Your task to perform on an android device: Go to network settings Image 0: 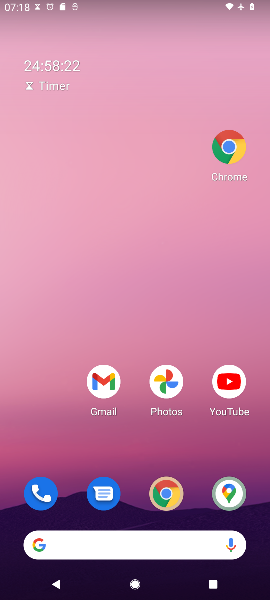
Step 0: press home button
Your task to perform on an android device: Go to network settings Image 1: 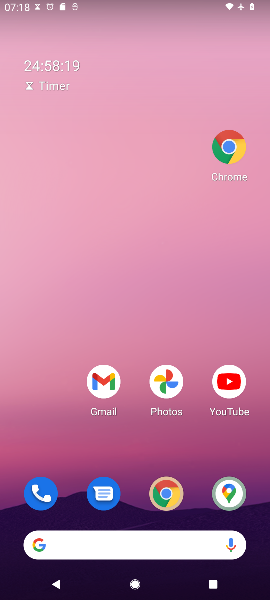
Step 1: drag from (73, 446) to (65, 40)
Your task to perform on an android device: Go to network settings Image 2: 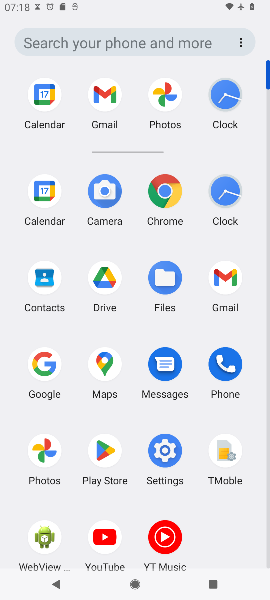
Step 2: click (164, 450)
Your task to perform on an android device: Go to network settings Image 3: 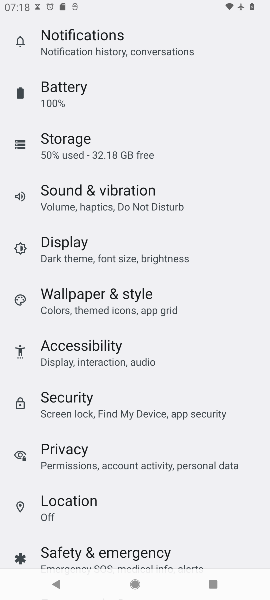
Step 3: drag from (96, 74) to (93, 337)
Your task to perform on an android device: Go to network settings Image 4: 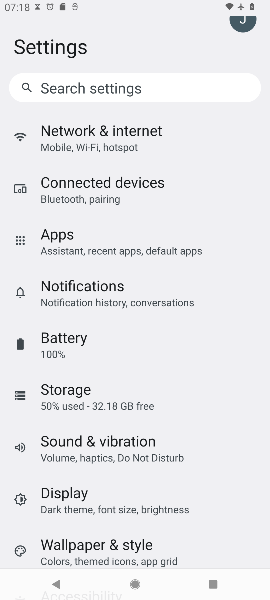
Step 4: click (92, 150)
Your task to perform on an android device: Go to network settings Image 5: 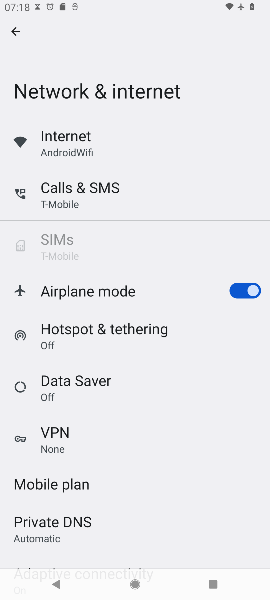
Step 5: task complete